Your task to perform on an android device: check android version Image 0: 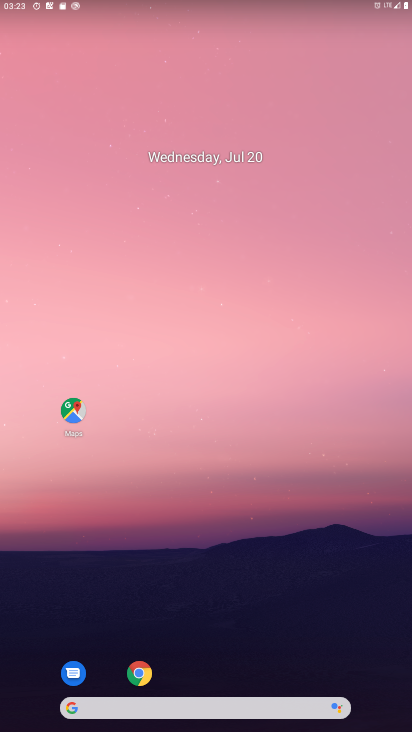
Step 0: drag from (190, 678) to (217, 4)
Your task to perform on an android device: check android version Image 1: 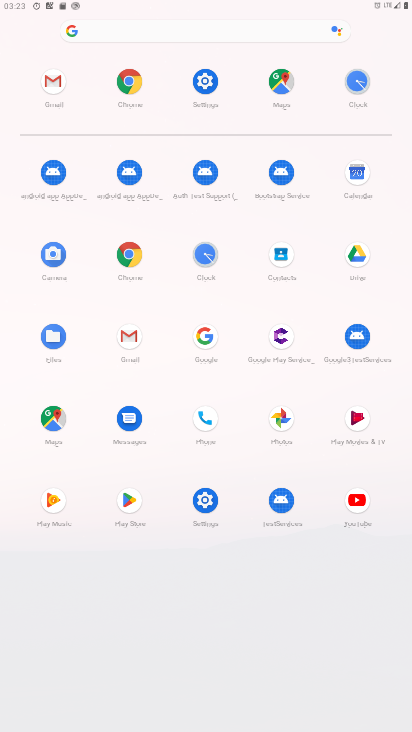
Step 1: click (213, 523)
Your task to perform on an android device: check android version Image 2: 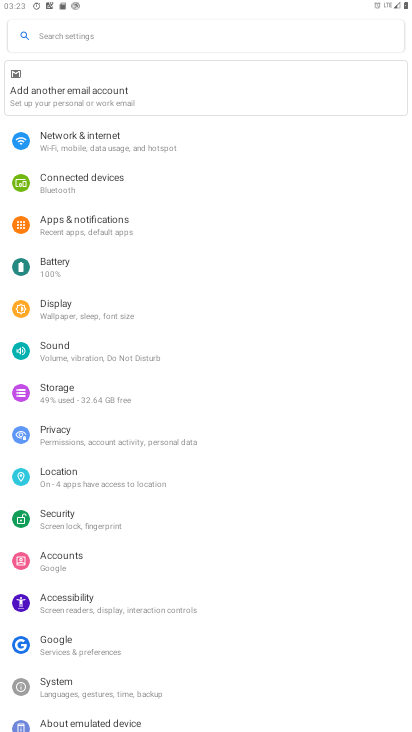
Step 2: drag from (77, 712) to (92, 488)
Your task to perform on an android device: check android version Image 3: 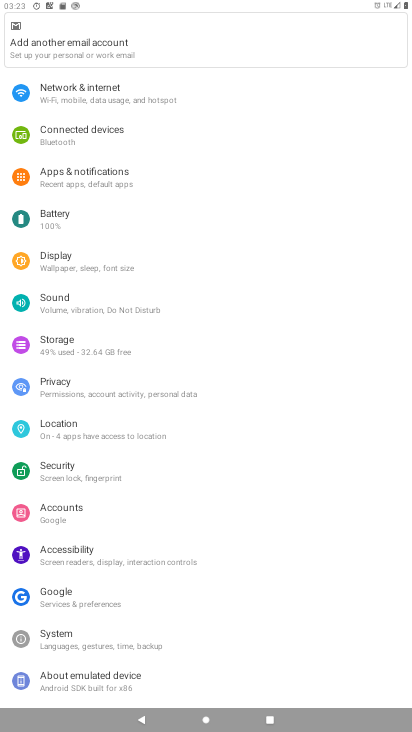
Step 3: click (91, 676)
Your task to perform on an android device: check android version Image 4: 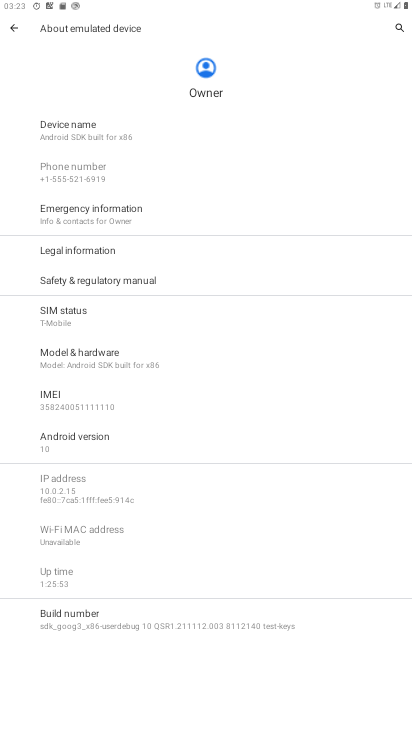
Step 4: click (85, 448)
Your task to perform on an android device: check android version Image 5: 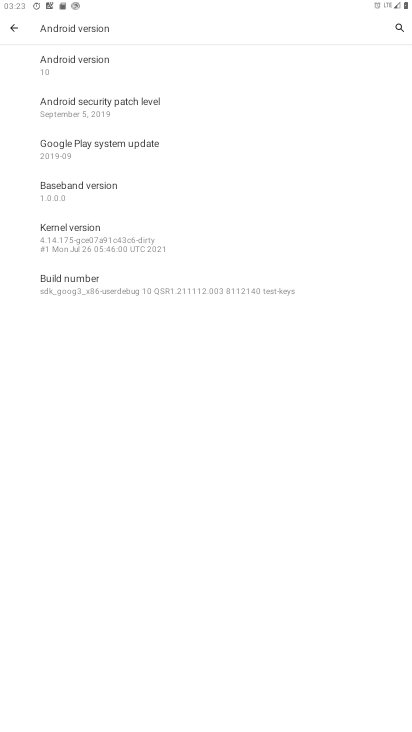
Step 5: click (65, 68)
Your task to perform on an android device: check android version Image 6: 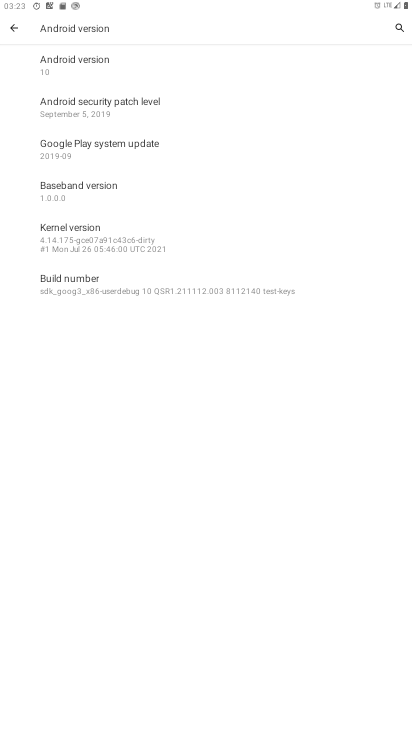
Step 6: task complete